Your task to perform on an android device: snooze an email in the gmail app Image 0: 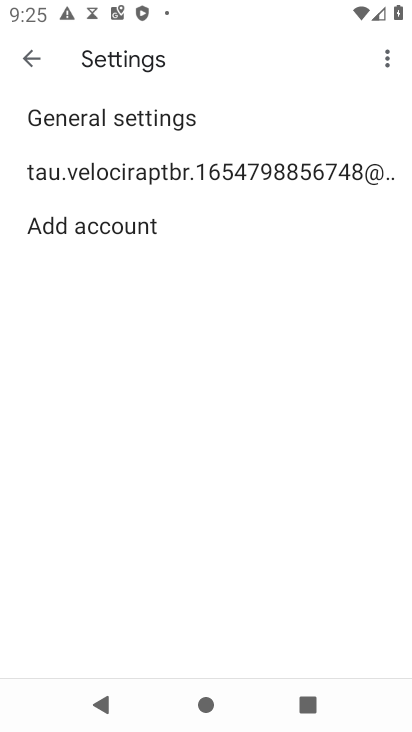
Step 0: press home button
Your task to perform on an android device: snooze an email in the gmail app Image 1: 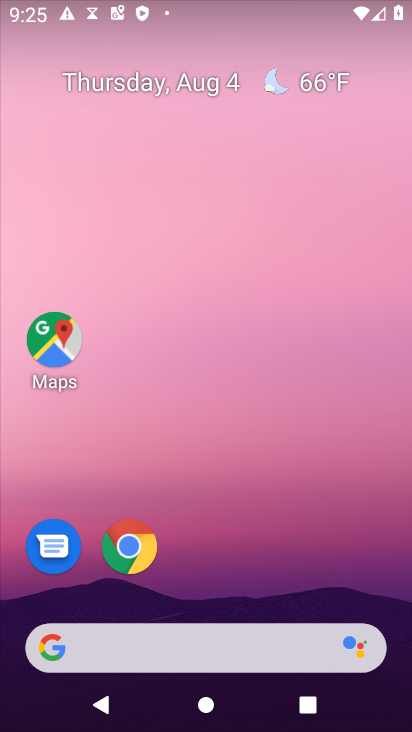
Step 1: drag from (243, 614) to (280, 172)
Your task to perform on an android device: snooze an email in the gmail app Image 2: 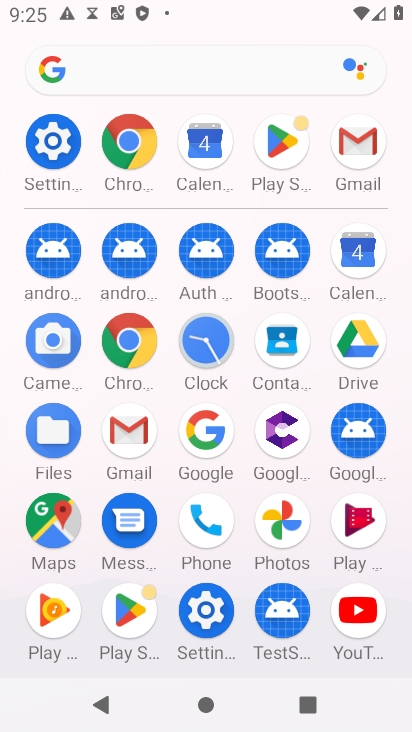
Step 2: click (360, 142)
Your task to perform on an android device: snooze an email in the gmail app Image 3: 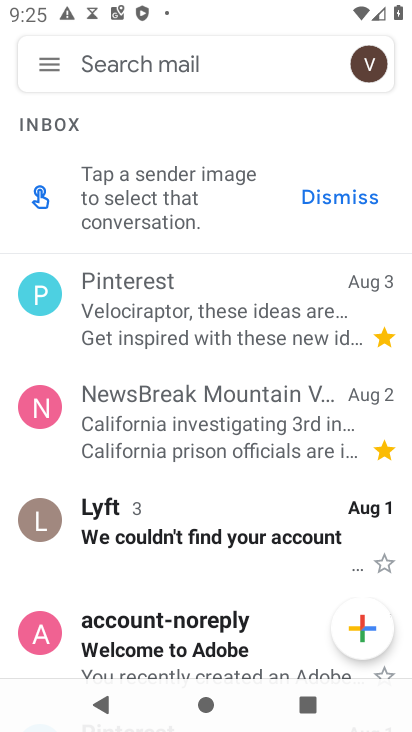
Step 3: click (210, 320)
Your task to perform on an android device: snooze an email in the gmail app Image 4: 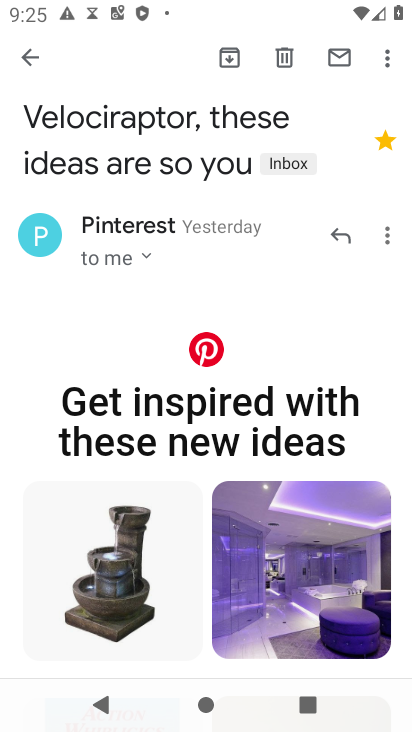
Step 4: click (390, 53)
Your task to perform on an android device: snooze an email in the gmail app Image 5: 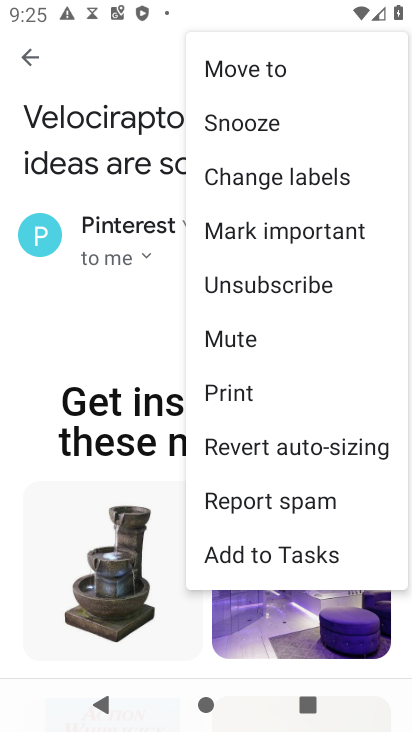
Step 5: click (243, 132)
Your task to perform on an android device: snooze an email in the gmail app Image 6: 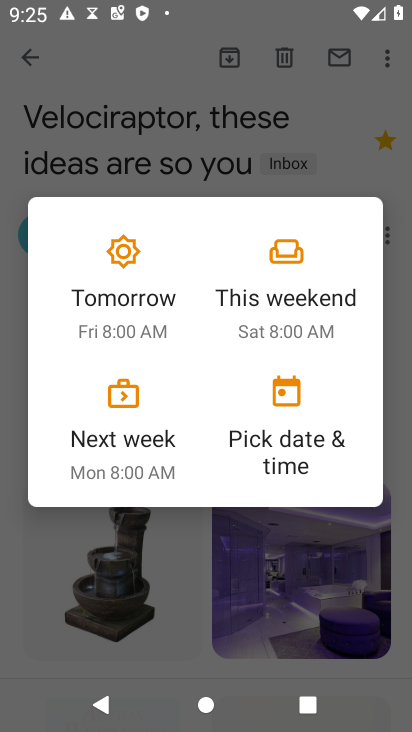
Step 6: click (115, 429)
Your task to perform on an android device: snooze an email in the gmail app Image 7: 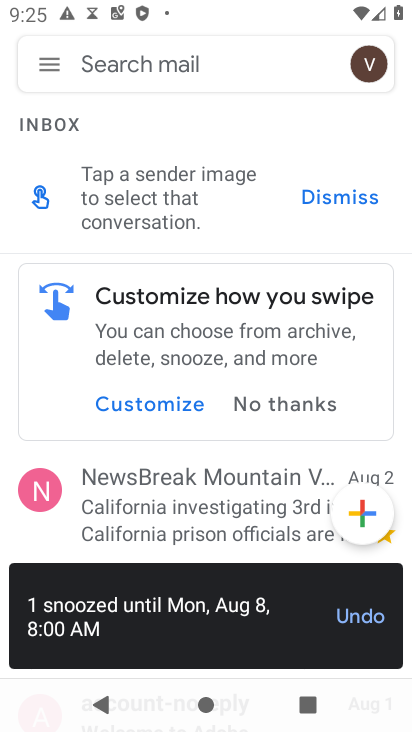
Step 7: task complete